Your task to perform on an android device: Search for sushi restaurants on Maps Image 0: 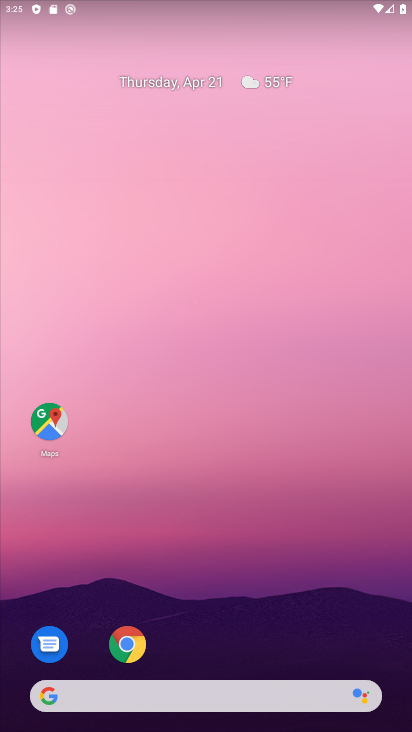
Step 0: drag from (196, 662) to (397, 688)
Your task to perform on an android device: Search for sushi restaurants on Maps Image 1: 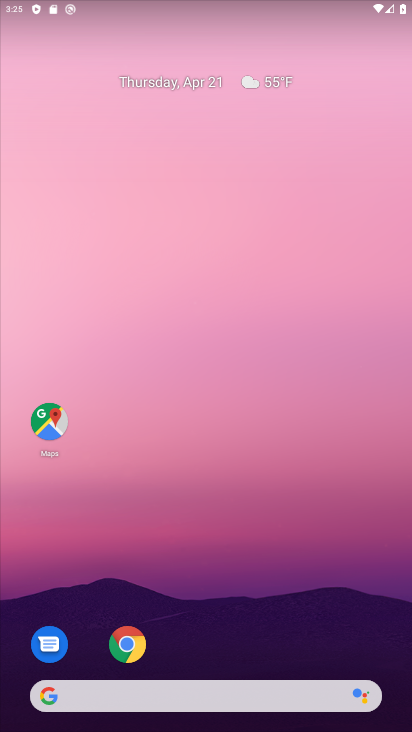
Step 1: drag from (219, 673) to (147, 26)
Your task to perform on an android device: Search for sushi restaurants on Maps Image 2: 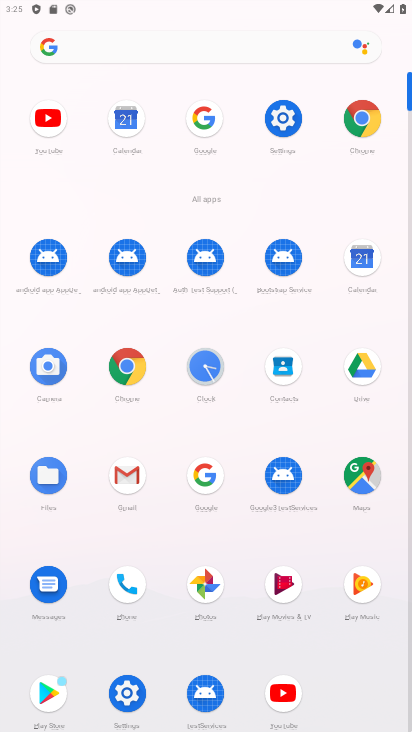
Step 2: click (356, 479)
Your task to perform on an android device: Search for sushi restaurants on Maps Image 3: 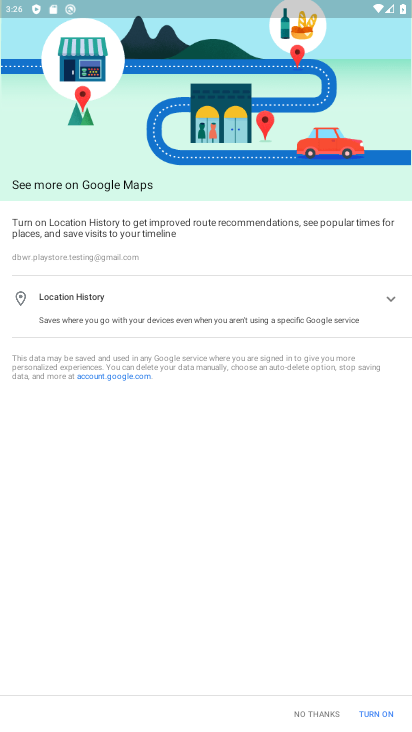
Step 3: click (385, 716)
Your task to perform on an android device: Search for sushi restaurants on Maps Image 4: 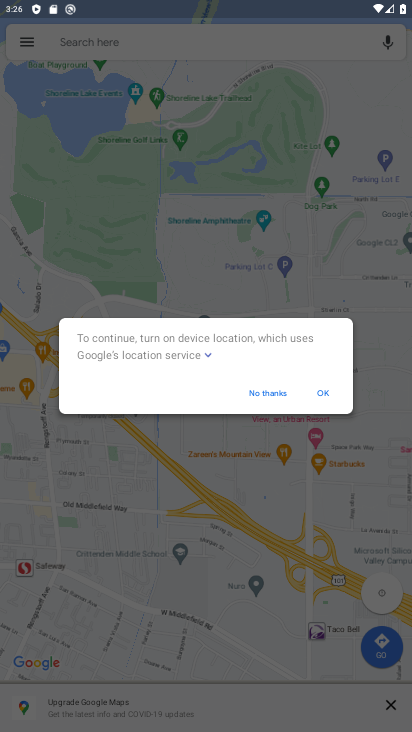
Step 4: click (313, 386)
Your task to perform on an android device: Search for sushi restaurants on Maps Image 5: 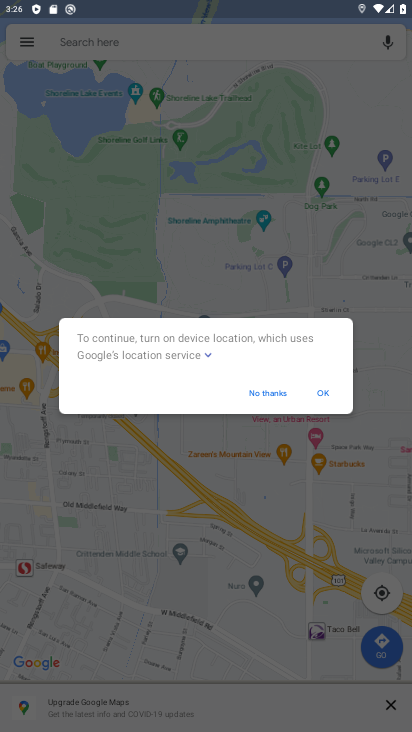
Step 5: click (319, 389)
Your task to perform on an android device: Search for sushi restaurants on Maps Image 6: 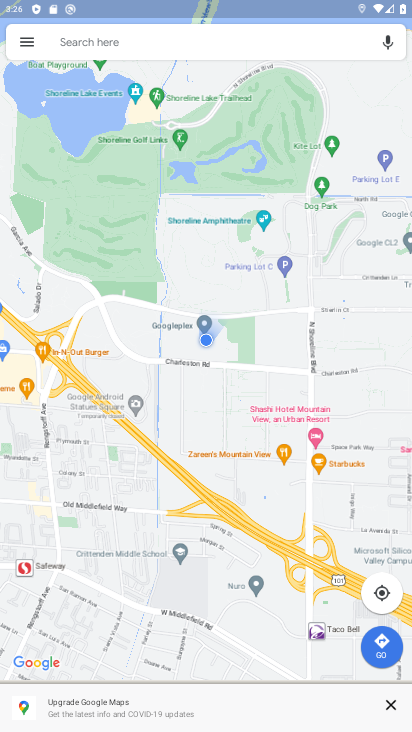
Step 6: click (188, 46)
Your task to perform on an android device: Search for sushi restaurants on Maps Image 7: 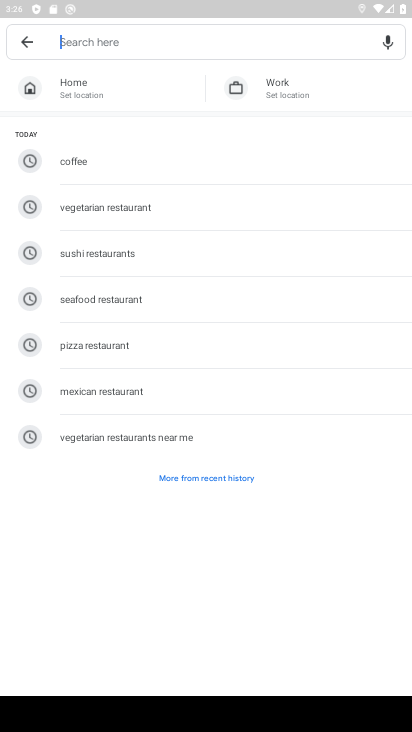
Step 7: click (120, 244)
Your task to perform on an android device: Search for sushi restaurants on Maps Image 8: 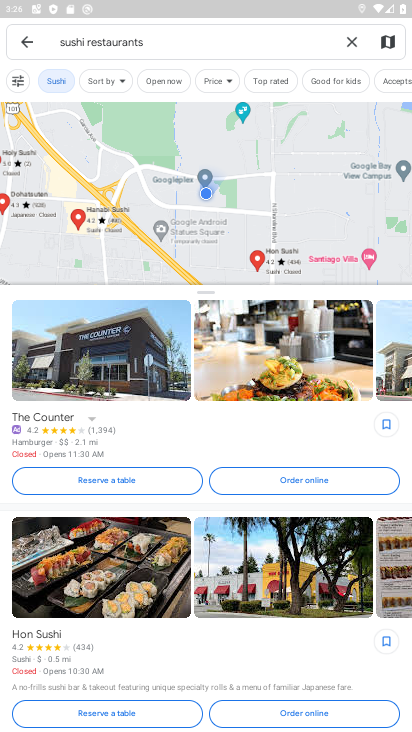
Step 8: task complete